Your task to perform on an android device: Open display settings Image 0: 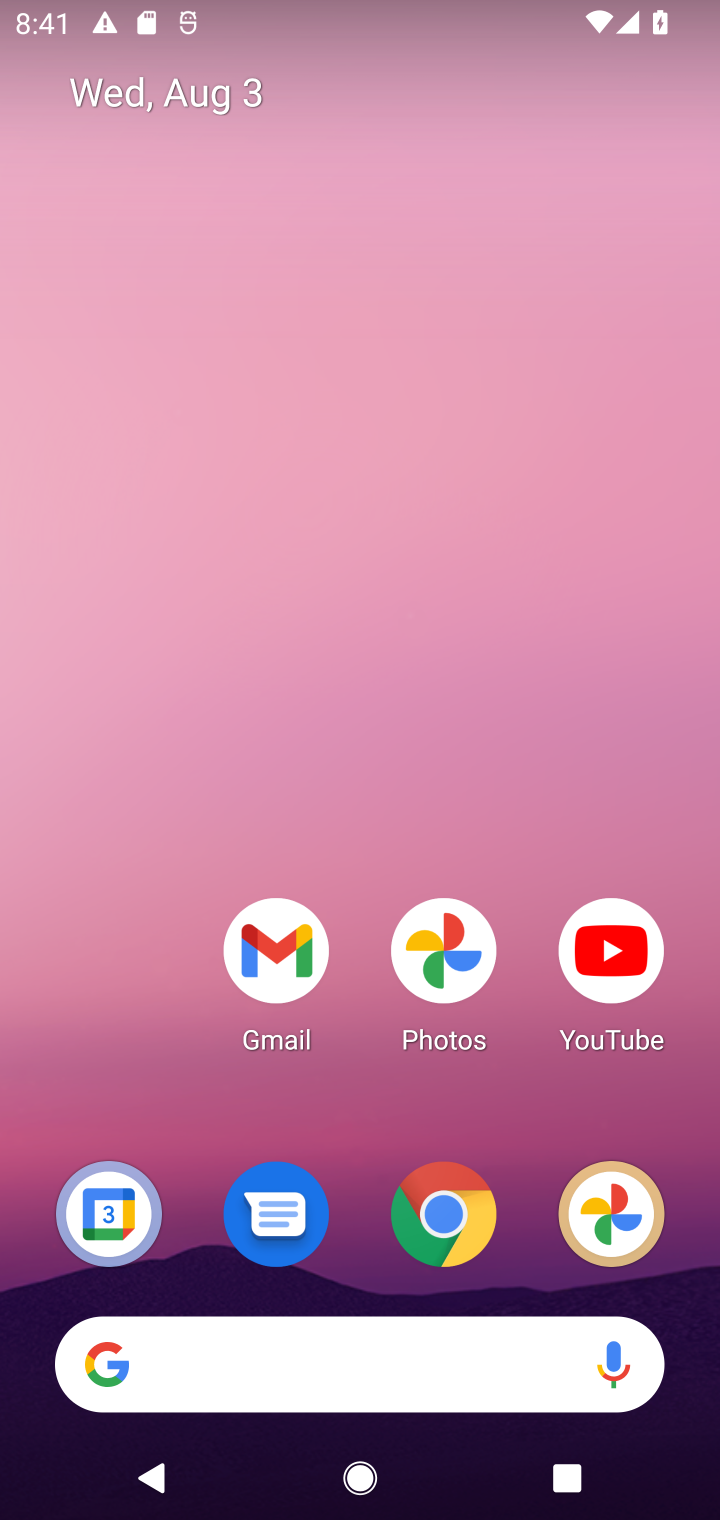
Step 0: drag from (453, 1090) to (470, 16)
Your task to perform on an android device: Open display settings Image 1: 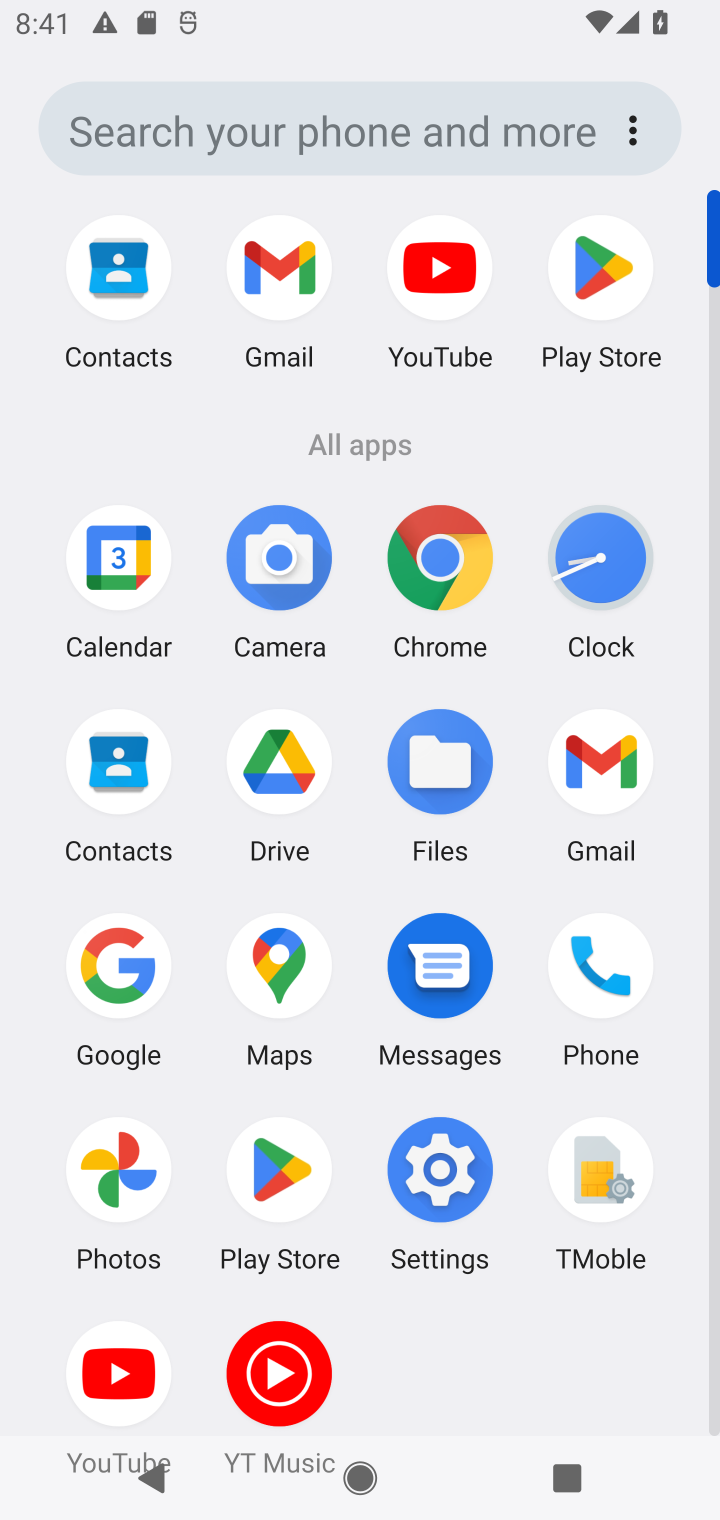
Step 1: click (446, 1181)
Your task to perform on an android device: Open display settings Image 2: 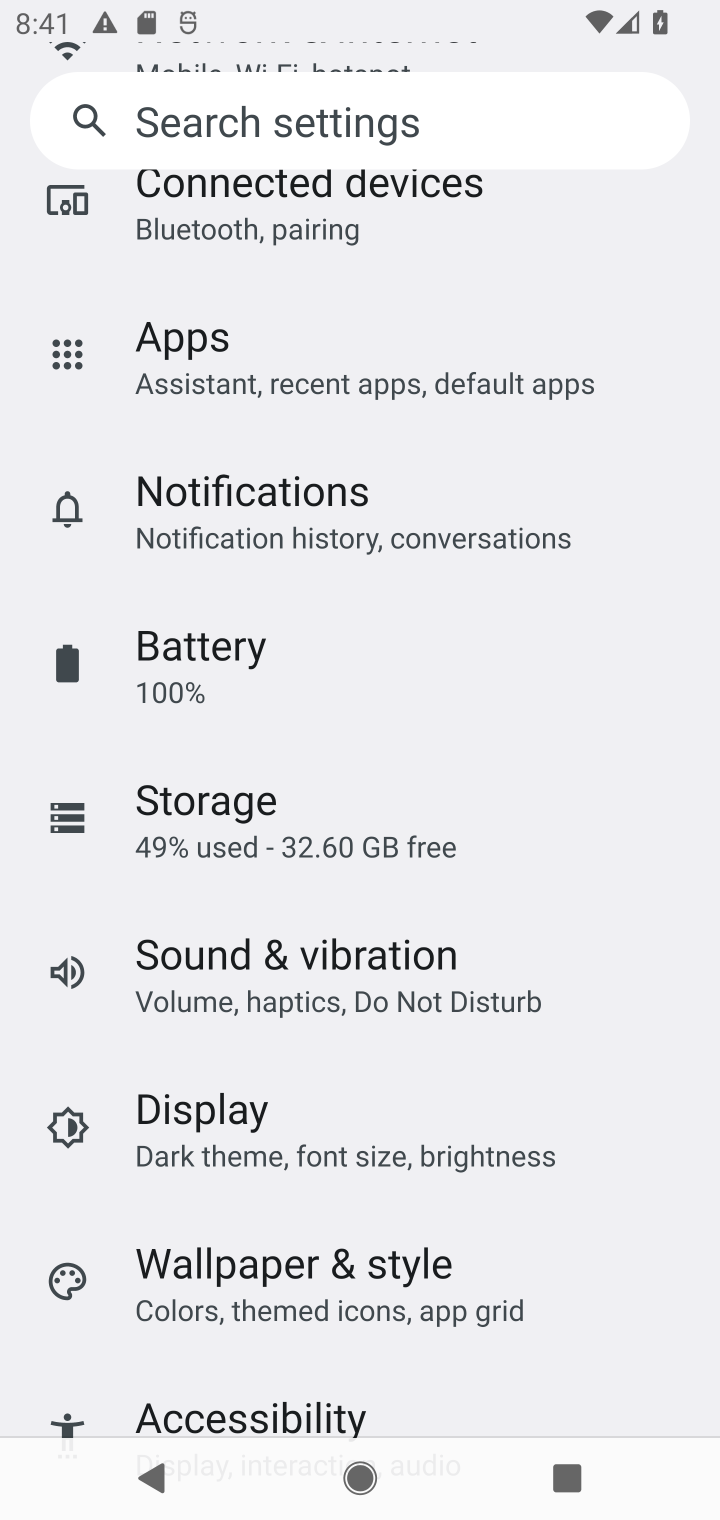
Step 2: click (295, 1111)
Your task to perform on an android device: Open display settings Image 3: 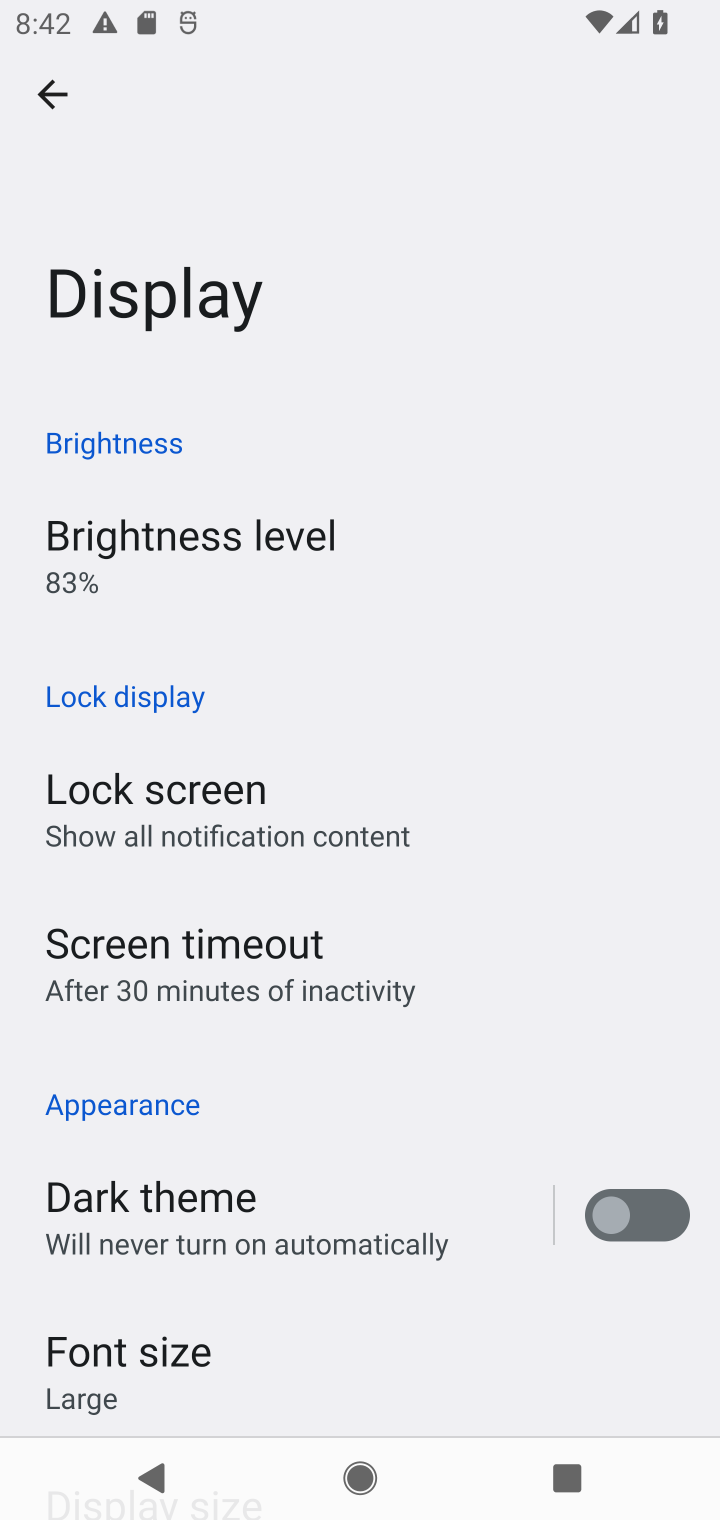
Step 3: task complete